Your task to perform on an android device: open a new tab in the chrome app Image 0: 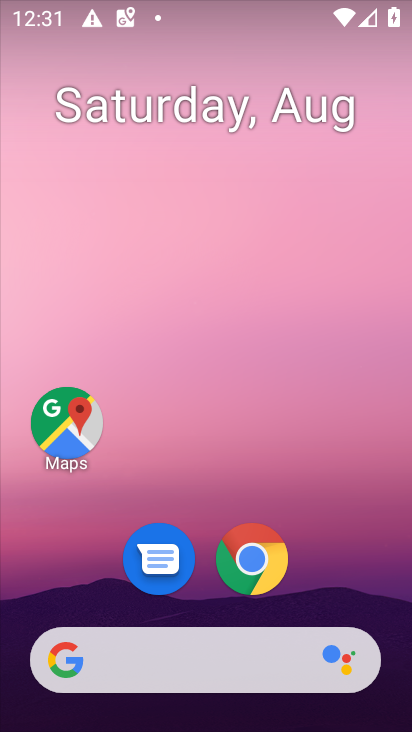
Step 0: click (261, 560)
Your task to perform on an android device: open a new tab in the chrome app Image 1: 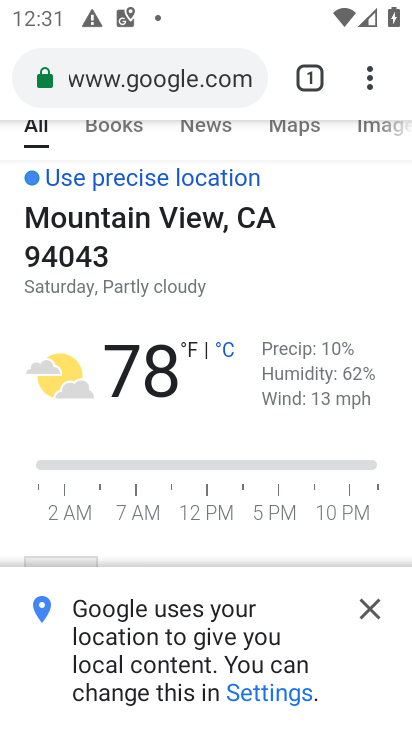
Step 1: click (380, 70)
Your task to perform on an android device: open a new tab in the chrome app Image 2: 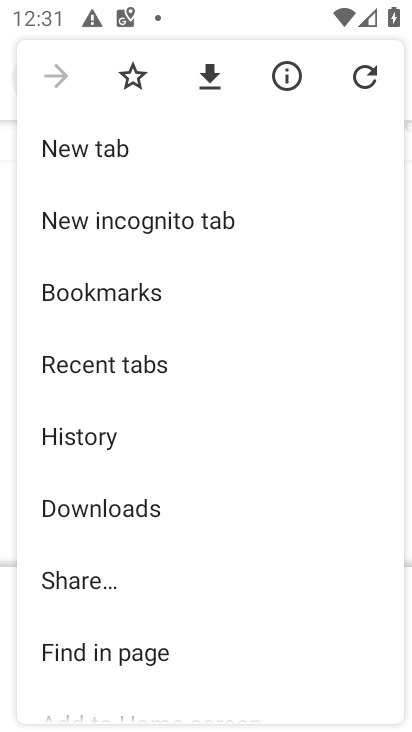
Step 2: click (189, 152)
Your task to perform on an android device: open a new tab in the chrome app Image 3: 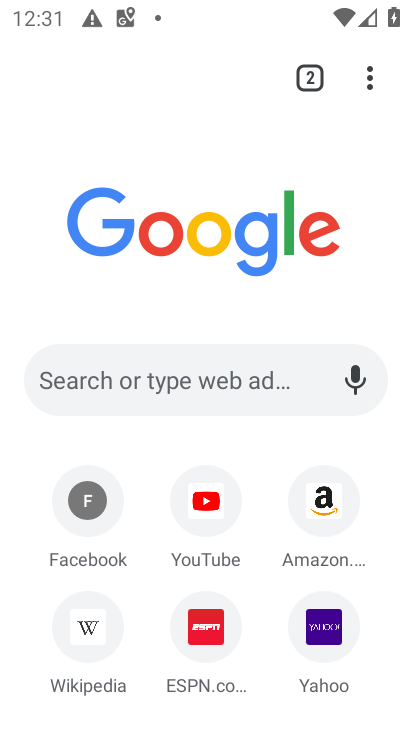
Step 3: task complete